Your task to perform on an android device: add a contact Image 0: 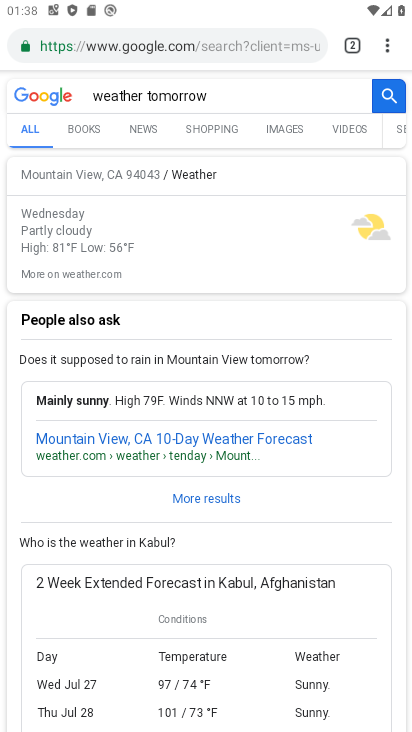
Step 0: press home button
Your task to perform on an android device: add a contact Image 1: 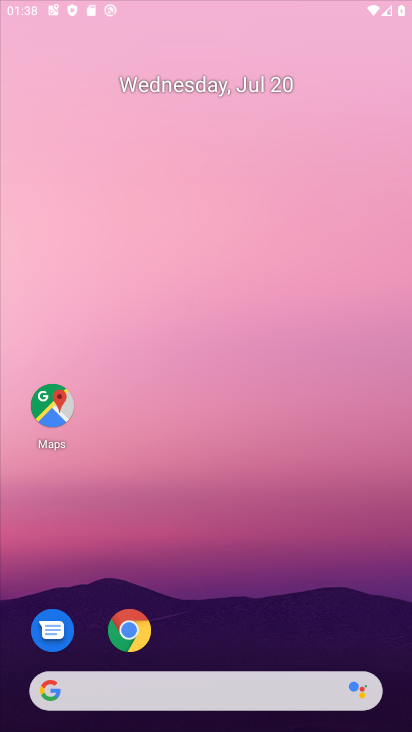
Step 1: press home button
Your task to perform on an android device: add a contact Image 2: 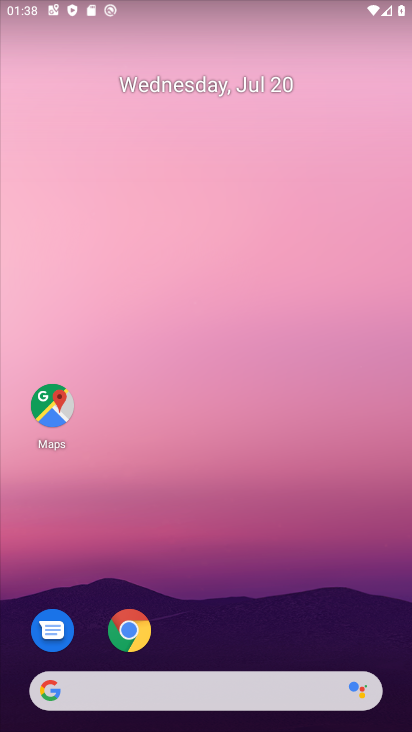
Step 2: drag from (249, 648) to (253, 86)
Your task to perform on an android device: add a contact Image 3: 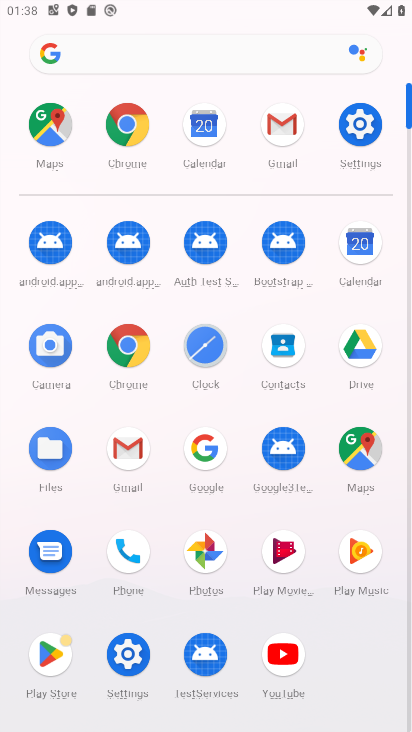
Step 3: click (297, 351)
Your task to perform on an android device: add a contact Image 4: 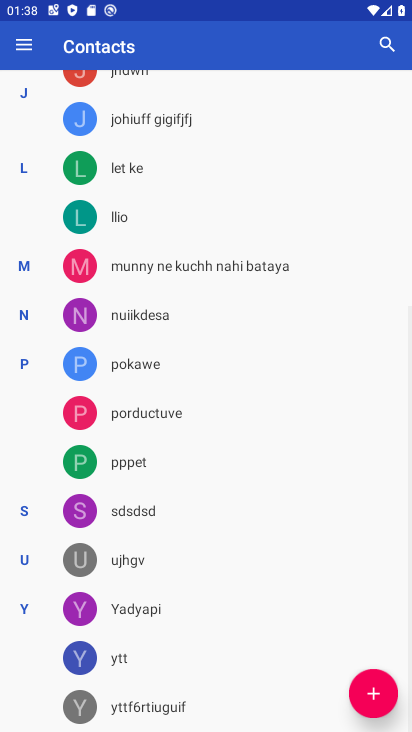
Step 4: click (371, 685)
Your task to perform on an android device: add a contact Image 5: 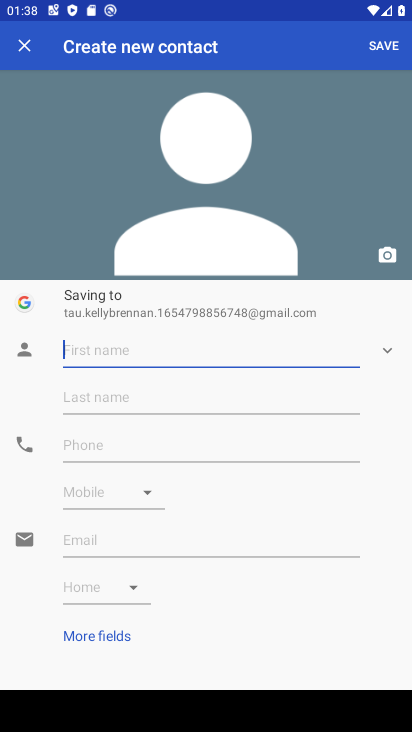
Step 5: type "normal"
Your task to perform on an android device: add a contact Image 6: 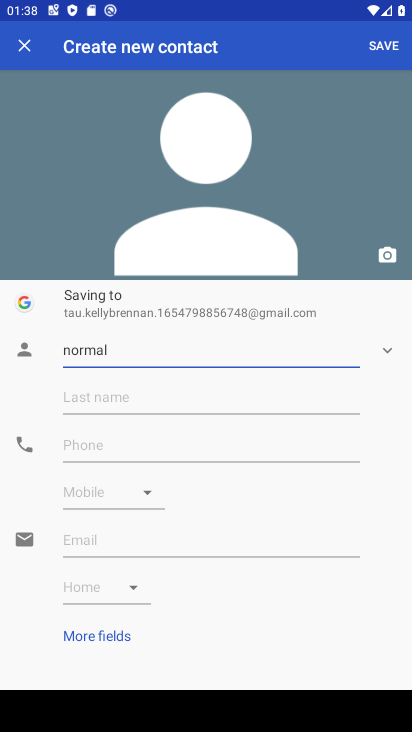
Step 6: click (385, 44)
Your task to perform on an android device: add a contact Image 7: 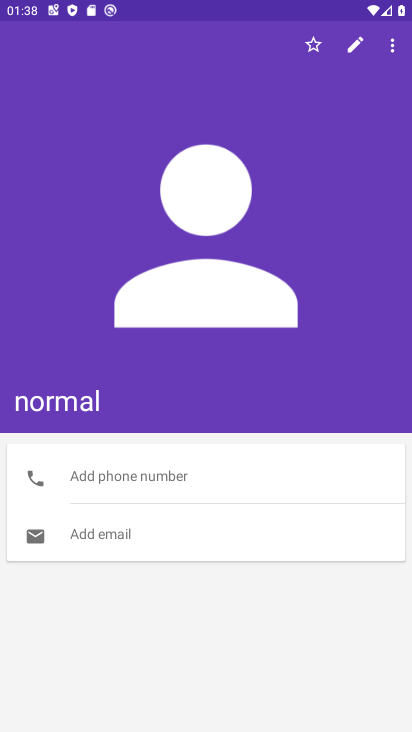
Step 7: task complete